Your task to perform on an android device: install app "DoorDash - Dasher" Image 0: 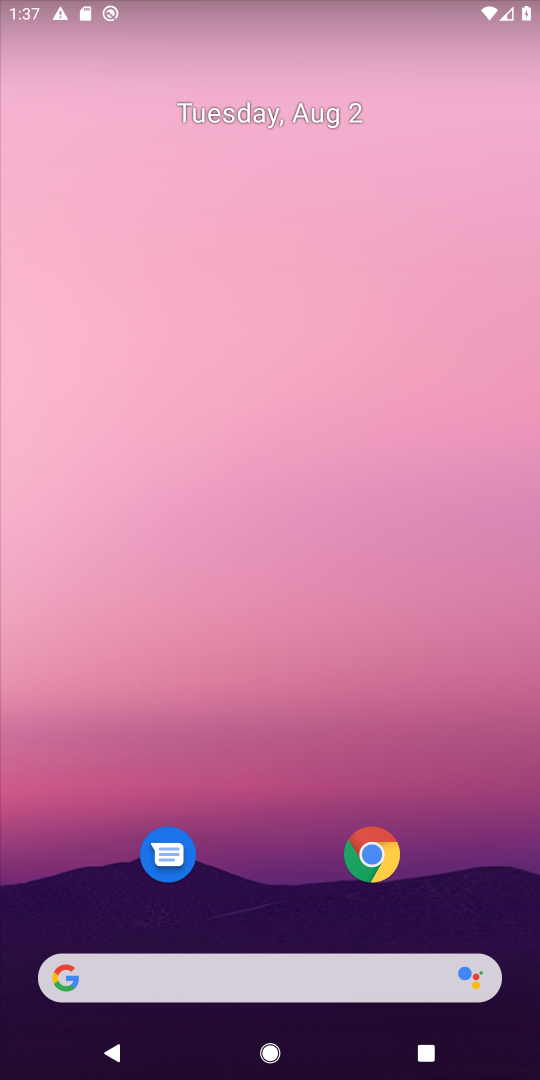
Step 0: drag from (303, 1063) to (268, 86)
Your task to perform on an android device: install app "DoorDash - Dasher" Image 1: 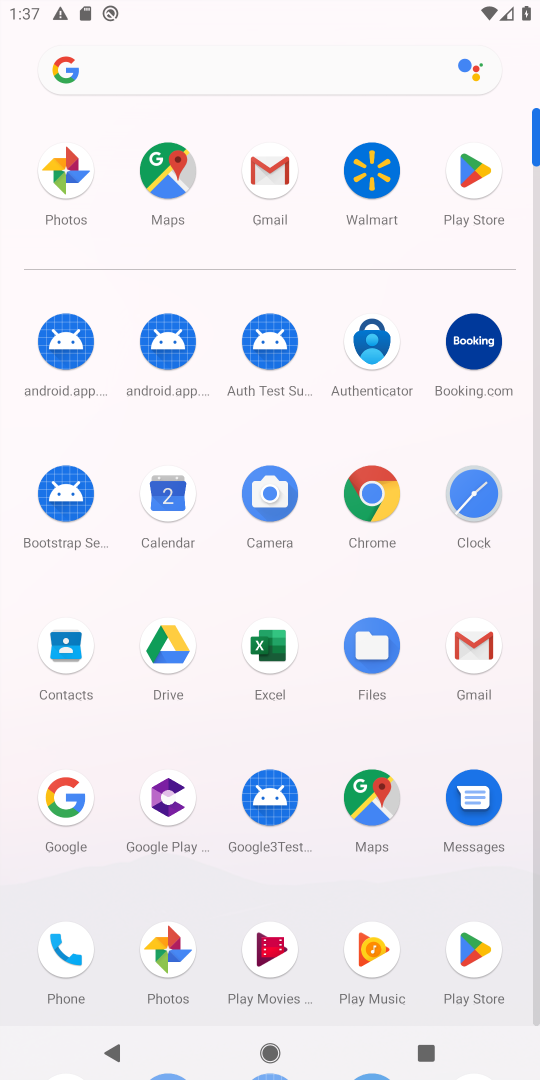
Step 1: click (468, 189)
Your task to perform on an android device: install app "DoorDash - Dasher" Image 2: 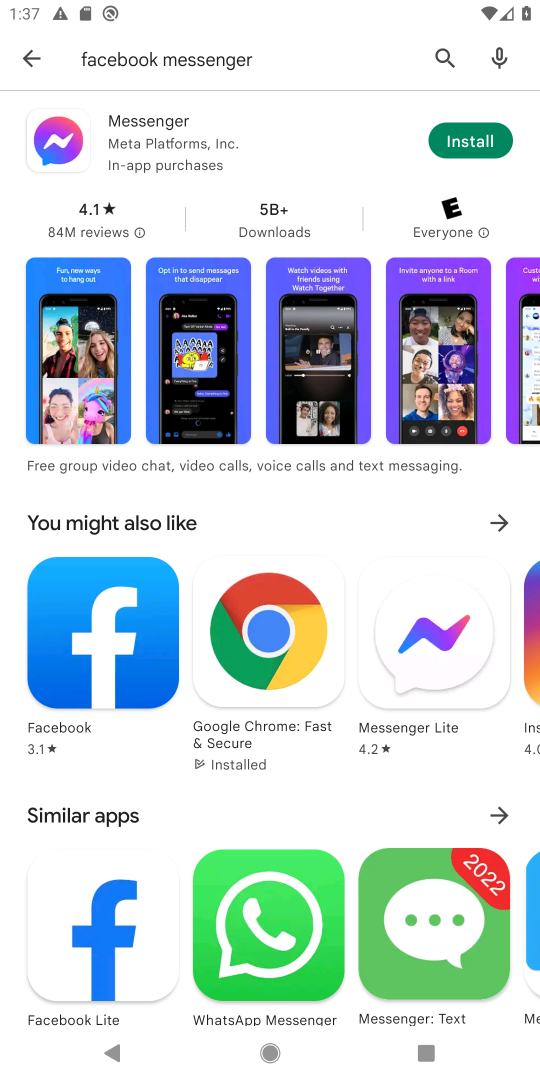
Step 2: click (449, 52)
Your task to perform on an android device: install app "DoorDash - Dasher" Image 3: 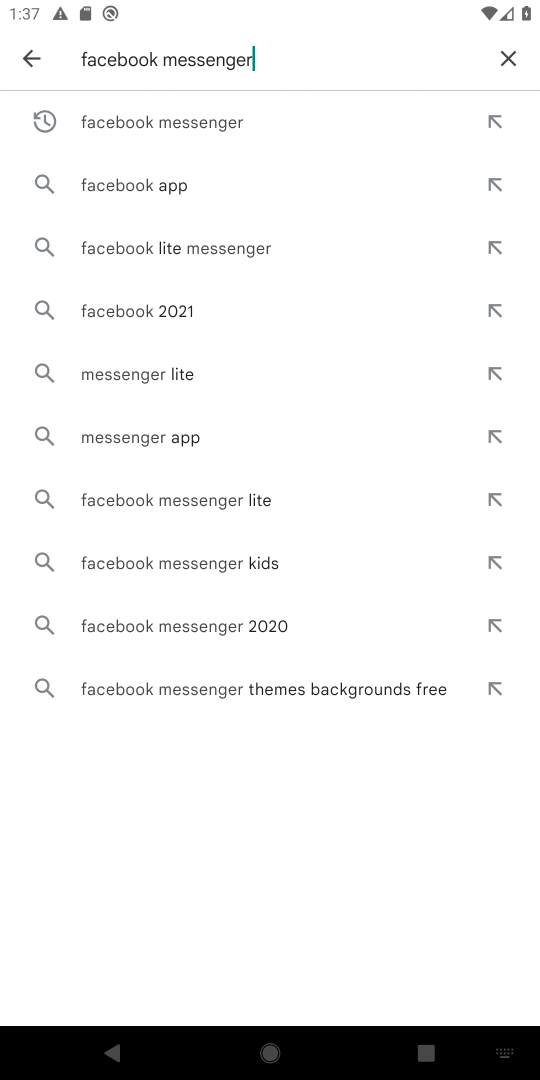
Step 3: click (515, 59)
Your task to perform on an android device: install app "DoorDash - Dasher" Image 4: 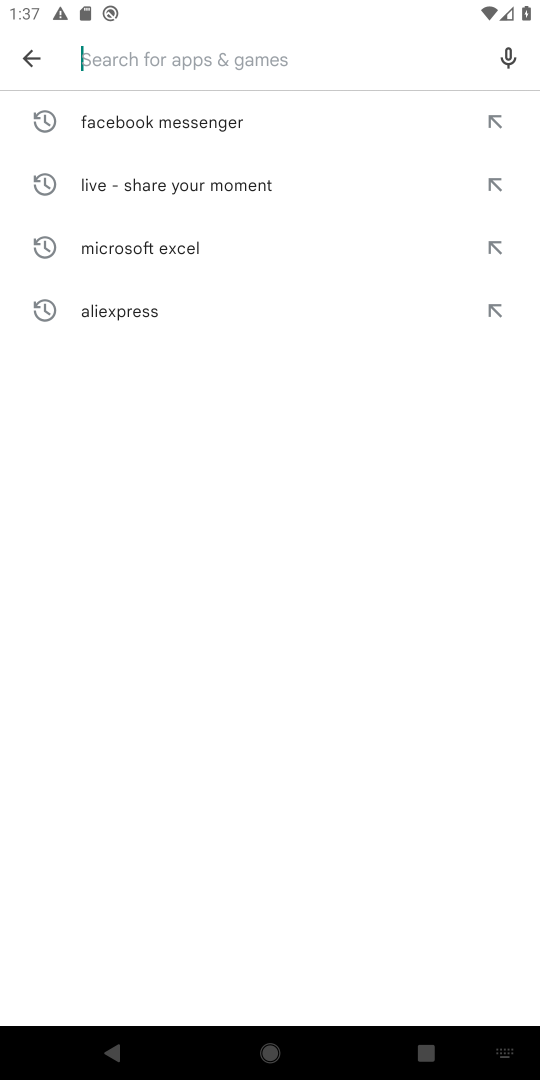
Step 4: type "DoorDash - Dasher"
Your task to perform on an android device: install app "DoorDash - Dasher" Image 5: 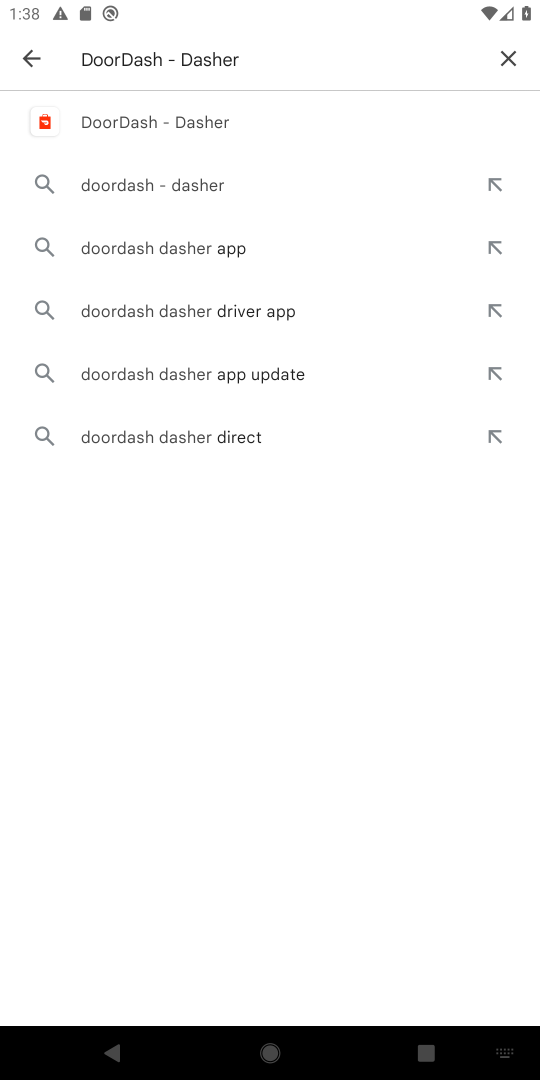
Step 5: click (186, 127)
Your task to perform on an android device: install app "DoorDash - Dasher" Image 6: 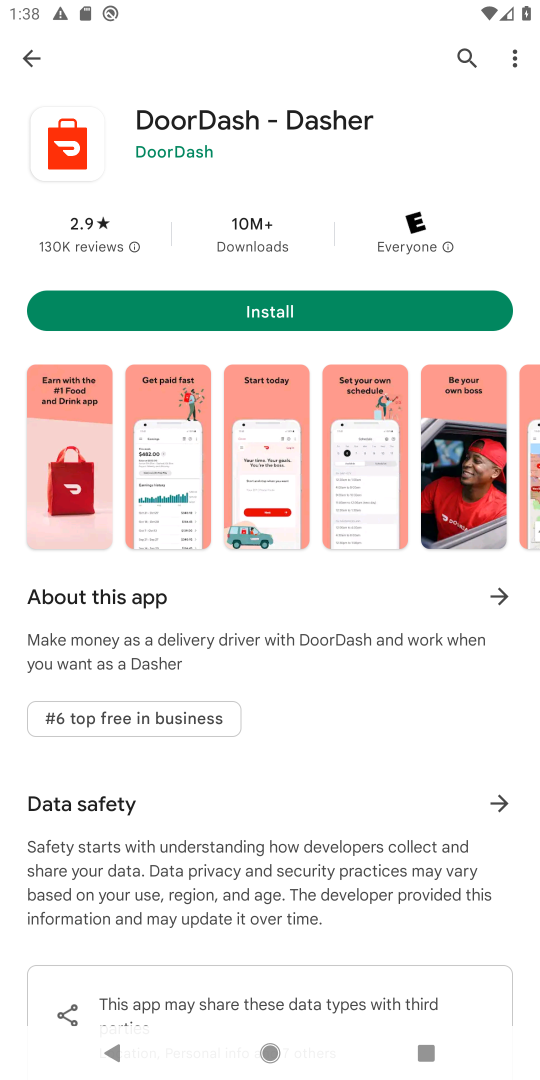
Step 6: click (285, 315)
Your task to perform on an android device: install app "DoorDash - Dasher" Image 7: 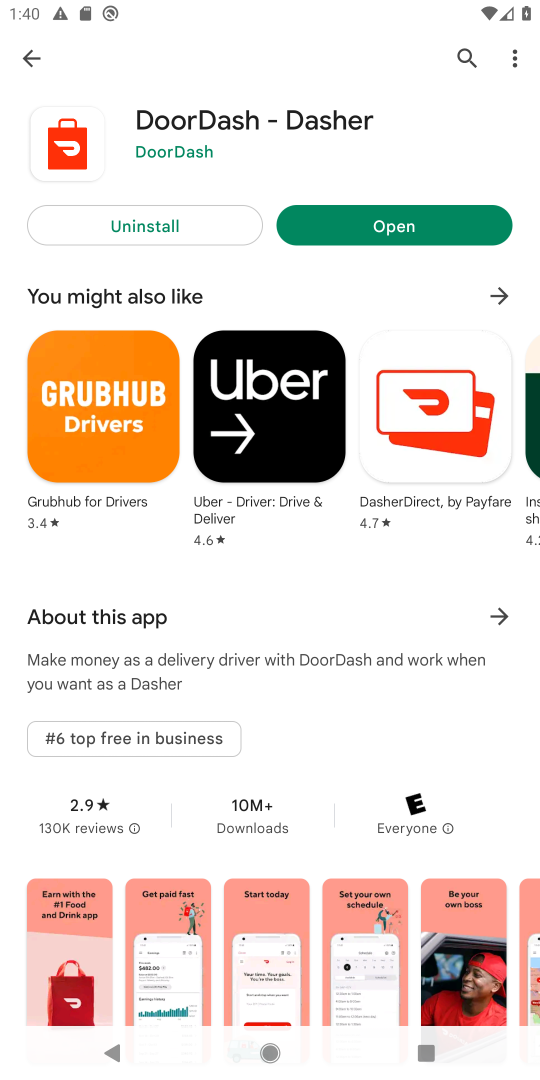
Step 7: task complete